Your task to perform on an android device: Go to sound settings Image 0: 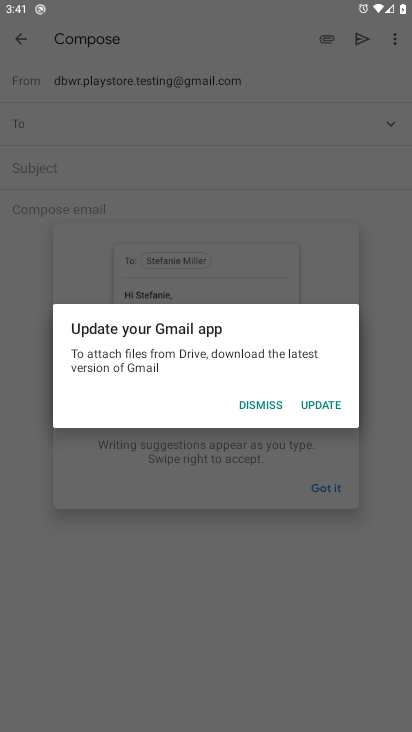
Step 0: press home button
Your task to perform on an android device: Go to sound settings Image 1: 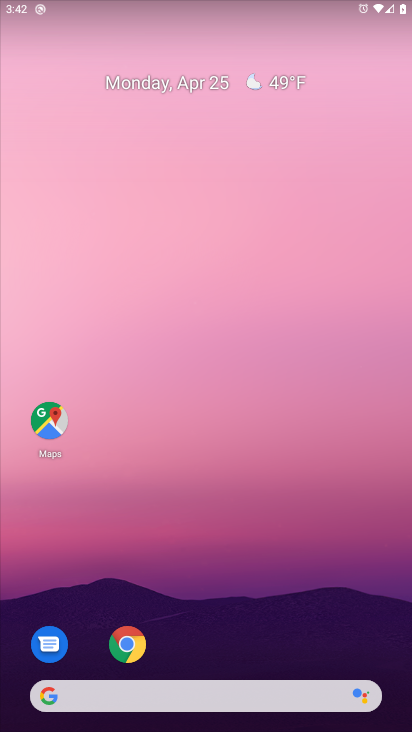
Step 1: drag from (230, 650) to (254, 22)
Your task to perform on an android device: Go to sound settings Image 2: 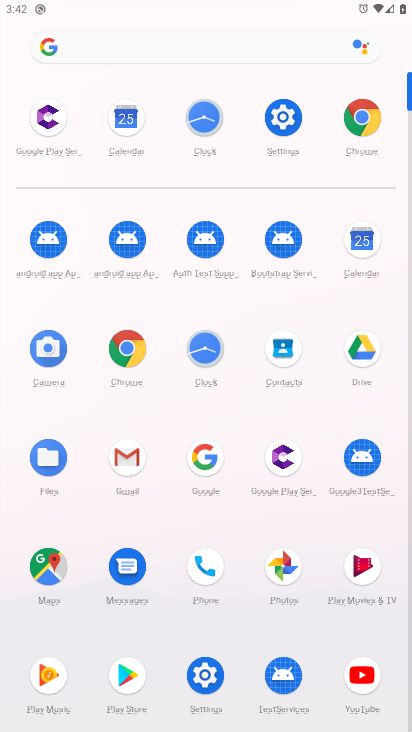
Step 2: click (278, 132)
Your task to perform on an android device: Go to sound settings Image 3: 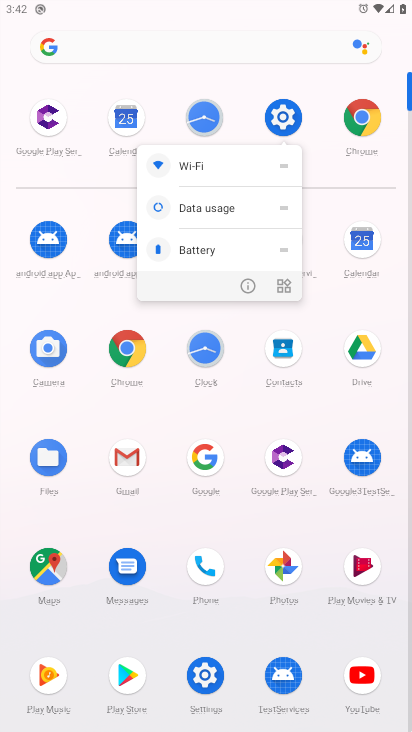
Step 3: click (278, 124)
Your task to perform on an android device: Go to sound settings Image 4: 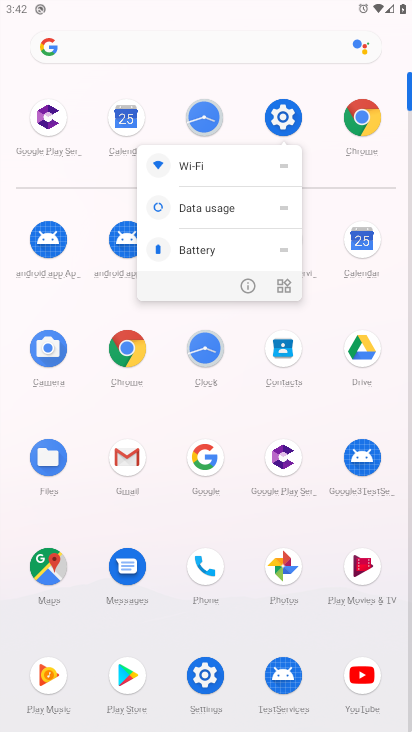
Step 4: click (278, 124)
Your task to perform on an android device: Go to sound settings Image 5: 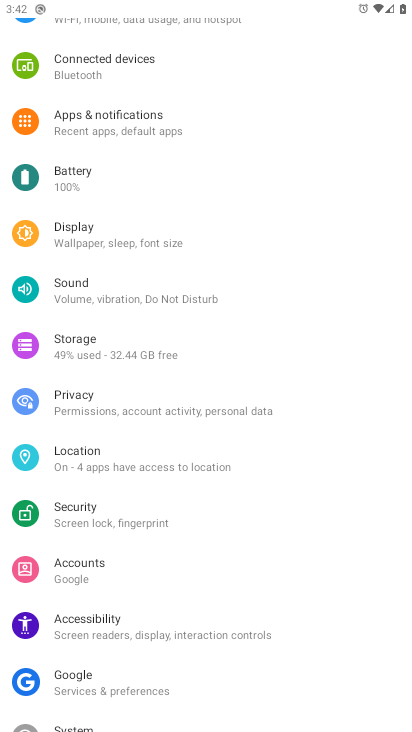
Step 5: click (154, 293)
Your task to perform on an android device: Go to sound settings Image 6: 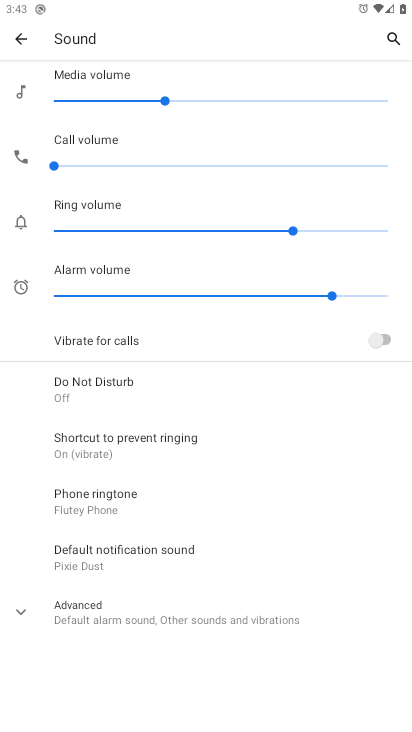
Step 6: task complete